Your task to perform on an android device: Go to eBay Image 0: 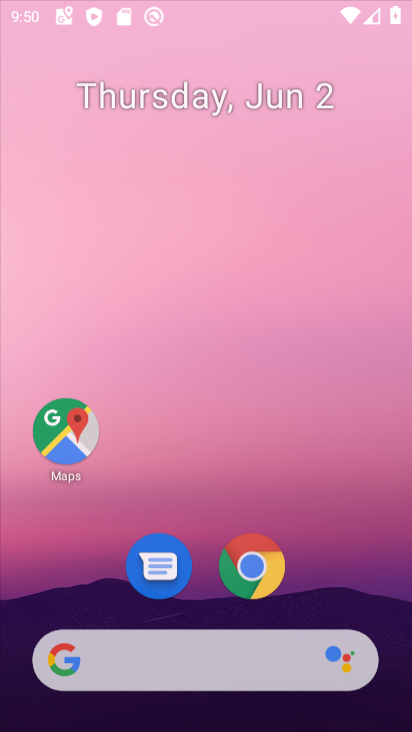
Step 0: click (238, 201)
Your task to perform on an android device: Go to eBay Image 1: 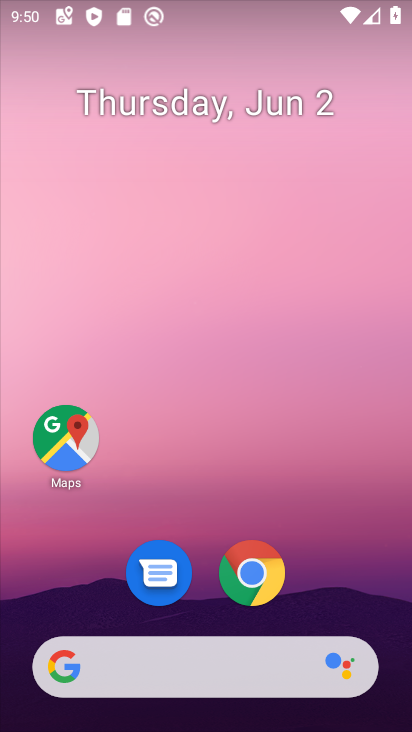
Step 1: click (253, 584)
Your task to perform on an android device: Go to eBay Image 2: 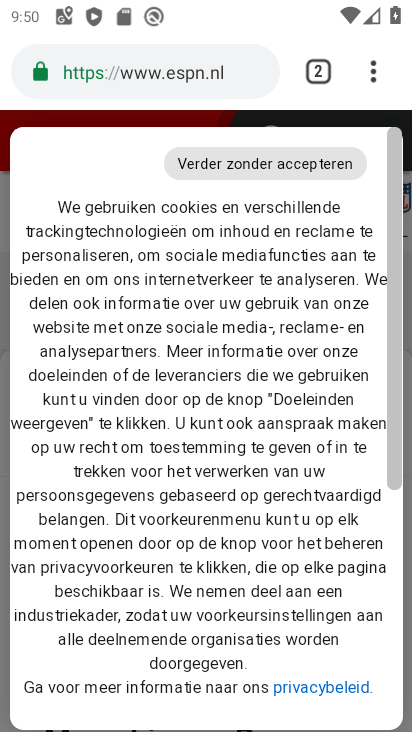
Step 2: click (329, 71)
Your task to perform on an android device: Go to eBay Image 3: 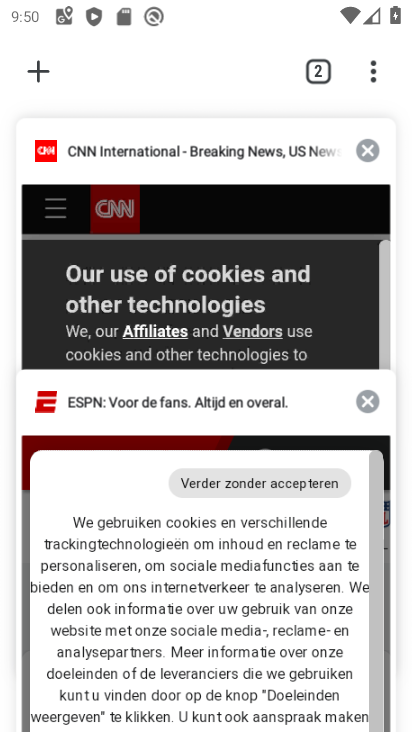
Step 3: click (39, 70)
Your task to perform on an android device: Go to eBay Image 4: 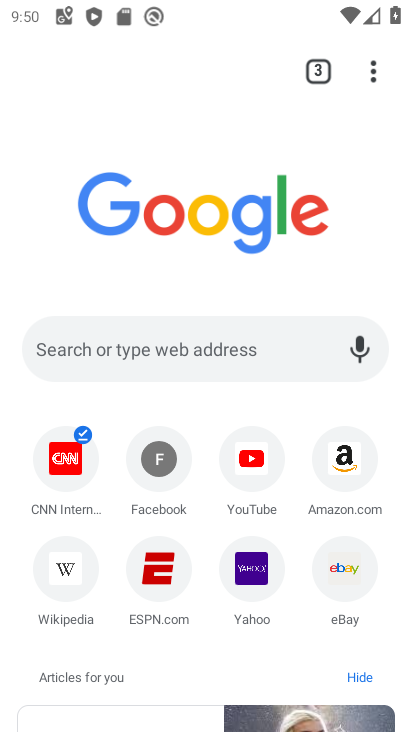
Step 4: click (345, 556)
Your task to perform on an android device: Go to eBay Image 5: 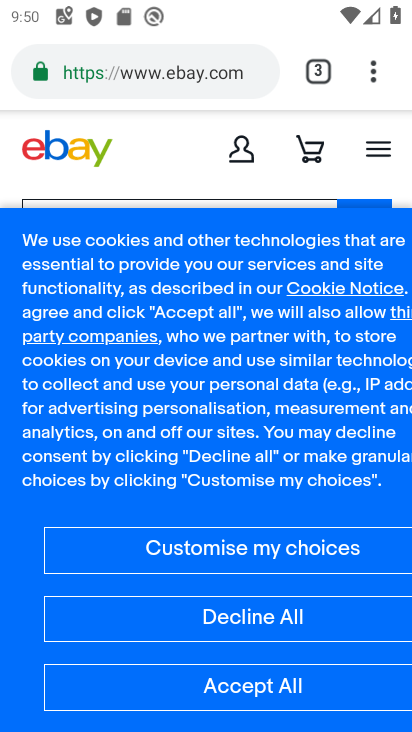
Step 5: task complete